Your task to perform on an android device: Open the calendar app, open the side menu, and click the "Day" option Image 0: 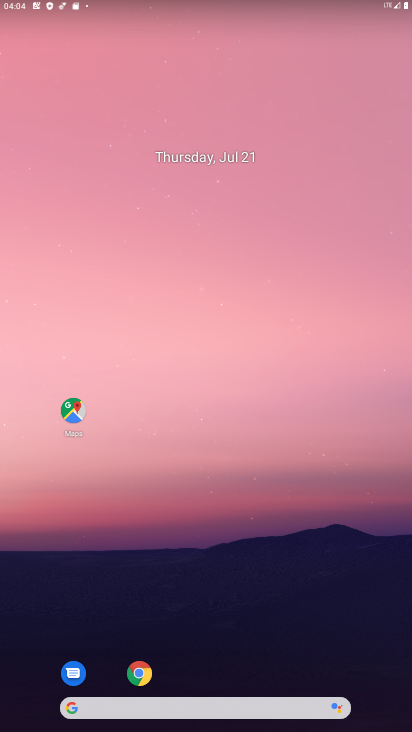
Step 0: drag from (286, 557) to (210, 83)
Your task to perform on an android device: Open the calendar app, open the side menu, and click the "Day" option Image 1: 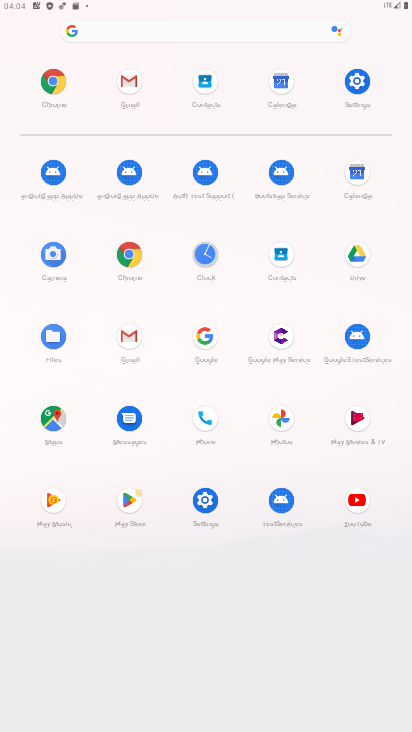
Step 1: click (362, 178)
Your task to perform on an android device: Open the calendar app, open the side menu, and click the "Day" option Image 2: 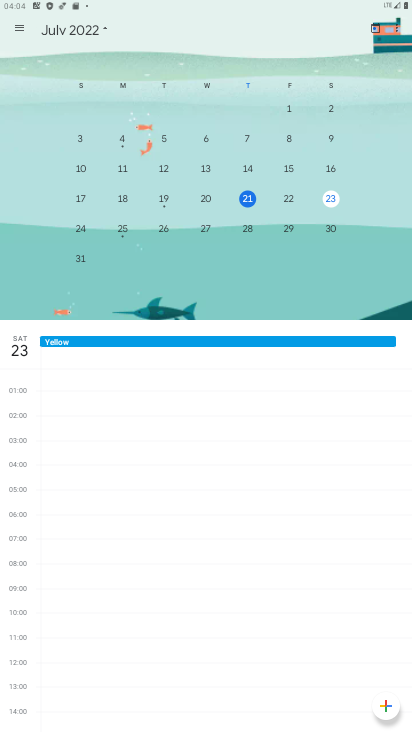
Step 2: click (10, 34)
Your task to perform on an android device: Open the calendar app, open the side menu, and click the "Day" option Image 3: 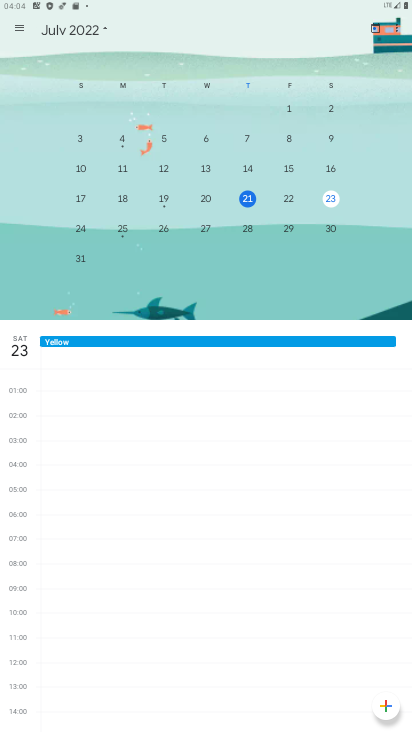
Step 3: click (12, 32)
Your task to perform on an android device: Open the calendar app, open the side menu, and click the "Day" option Image 4: 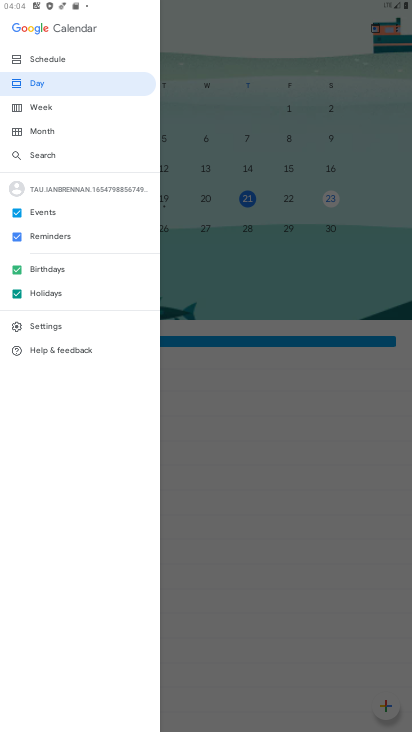
Step 4: click (52, 83)
Your task to perform on an android device: Open the calendar app, open the side menu, and click the "Day" option Image 5: 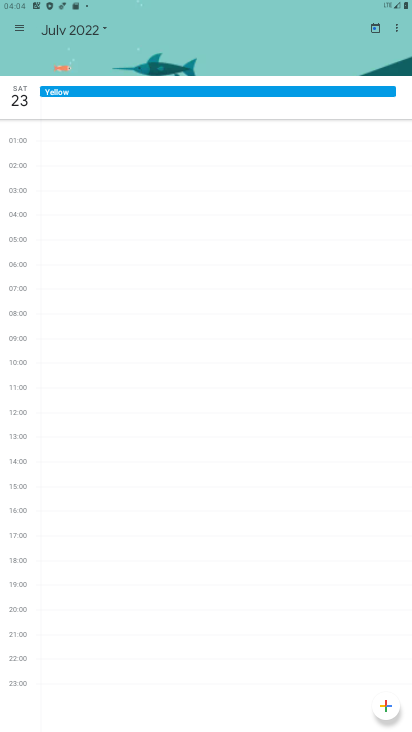
Step 5: task complete